Your task to perform on an android device: turn on airplane mode Image 0: 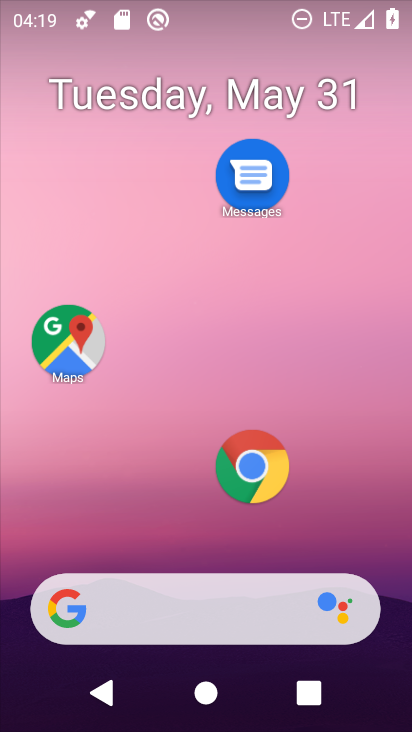
Step 0: drag from (343, 15) to (236, 510)
Your task to perform on an android device: turn on airplane mode Image 1: 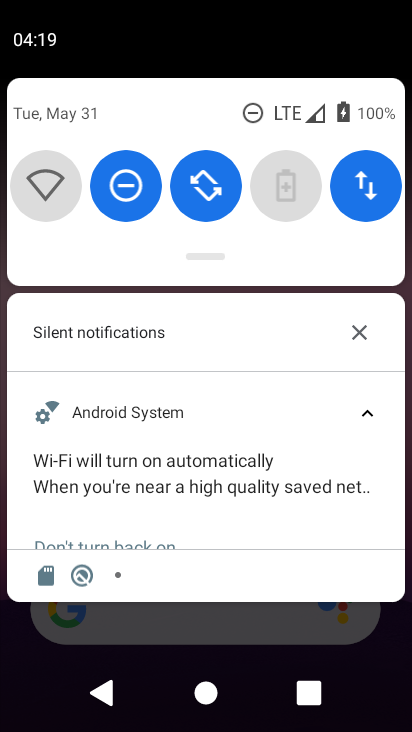
Step 1: drag from (206, 246) to (199, 557)
Your task to perform on an android device: turn on airplane mode Image 2: 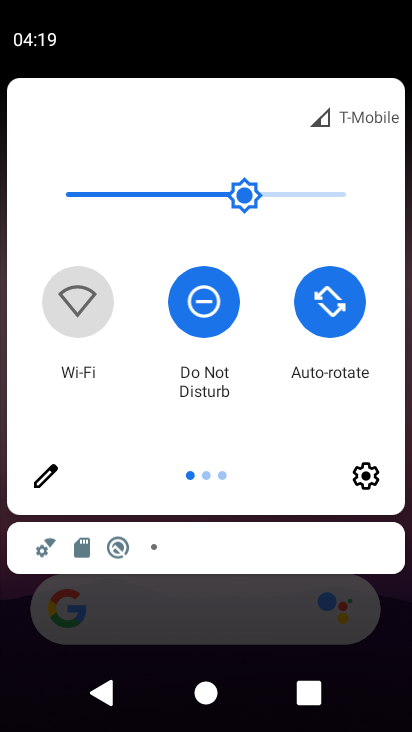
Step 2: drag from (358, 324) to (69, 279)
Your task to perform on an android device: turn on airplane mode Image 3: 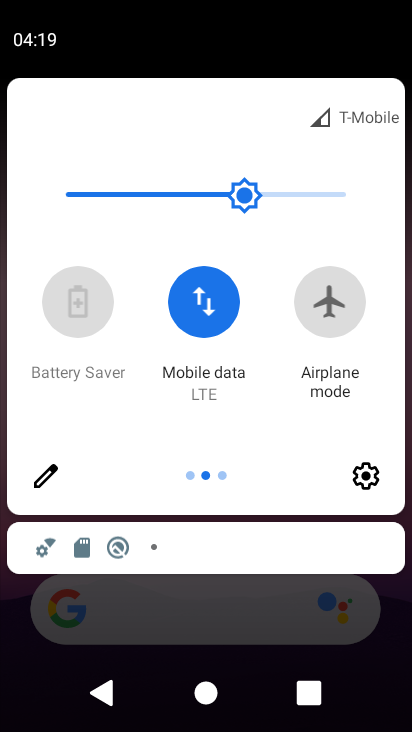
Step 3: click (336, 299)
Your task to perform on an android device: turn on airplane mode Image 4: 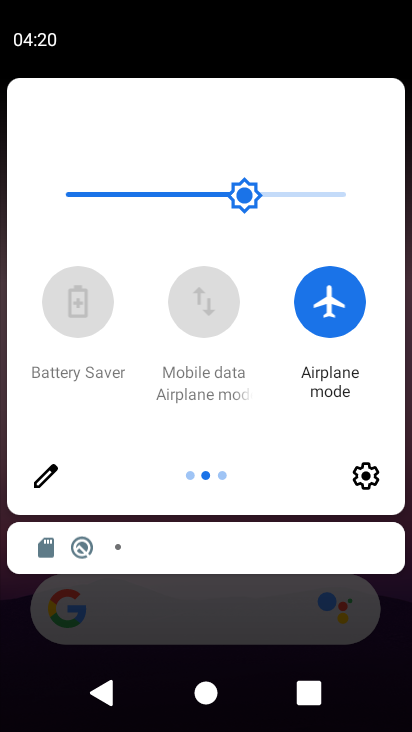
Step 4: task complete